Your task to perform on an android device: Open calendar and show me the fourth week of next month Image 0: 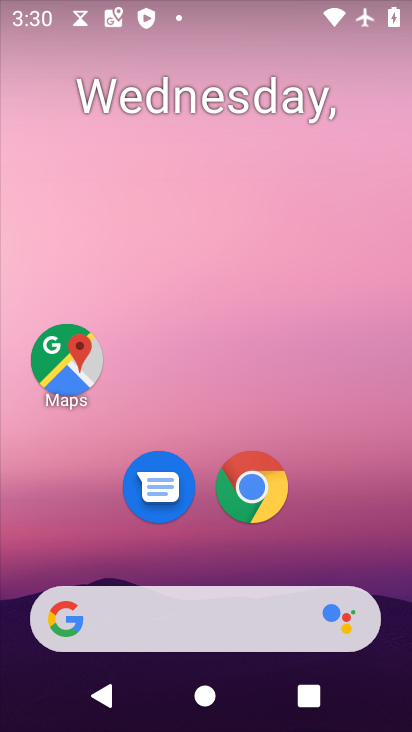
Step 0: drag from (374, 549) to (381, 68)
Your task to perform on an android device: Open calendar and show me the fourth week of next month Image 1: 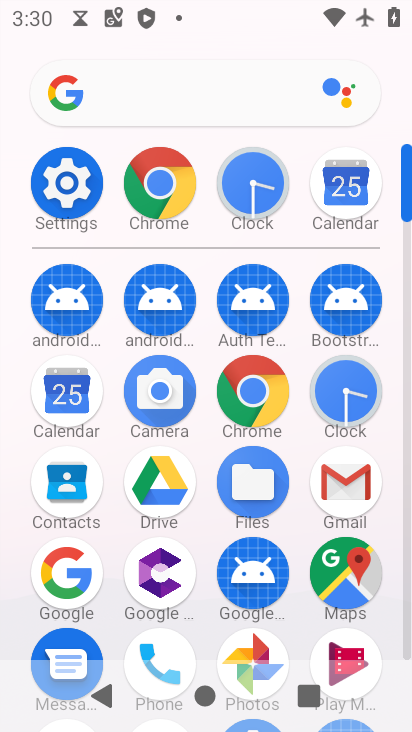
Step 1: click (56, 410)
Your task to perform on an android device: Open calendar and show me the fourth week of next month Image 2: 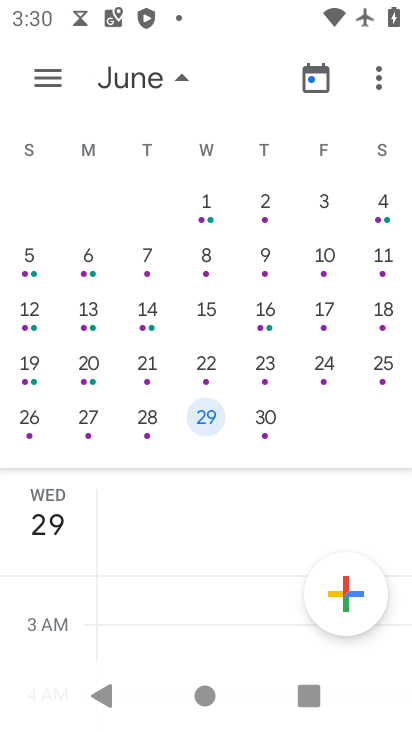
Step 2: drag from (319, 374) to (32, 195)
Your task to perform on an android device: Open calendar and show me the fourth week of next month Image 3: 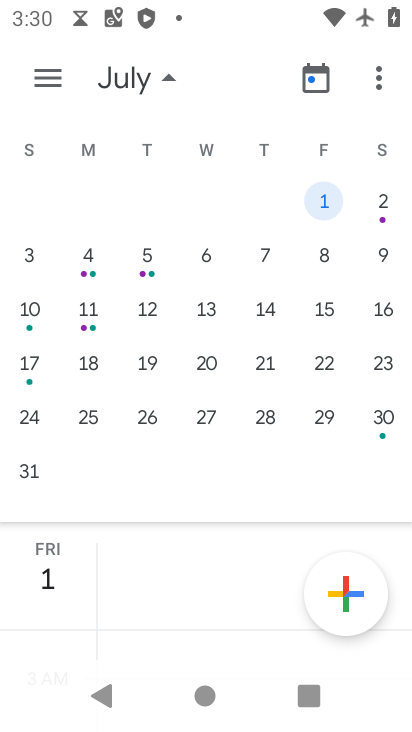
Step 3: click (269, 412)
Your task to perform on an android device: Open calendar and show me the fourth week of next month Image 4: 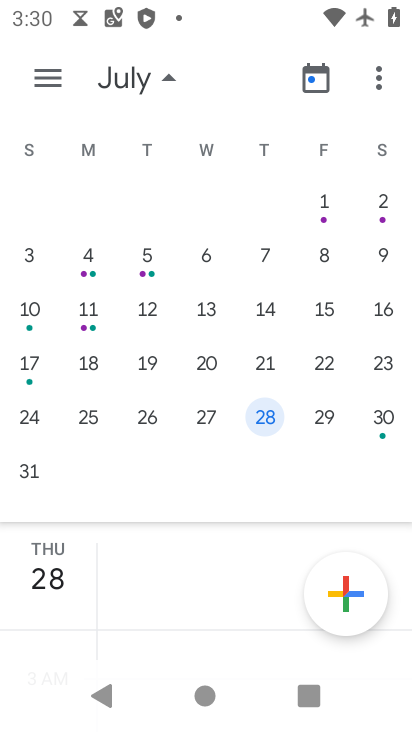
Step 4: task complete